Your task to perform on an android device: open app "Adobe Acrobat Reader" Image 0: 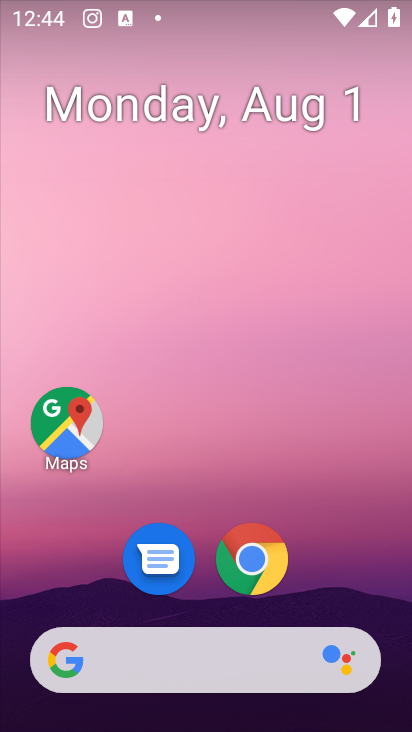
Step 0: drag from (123, 493) to (220, 25)
Your task to perform on an android device: open app "Adobe Acrobat Reader" Image 1: 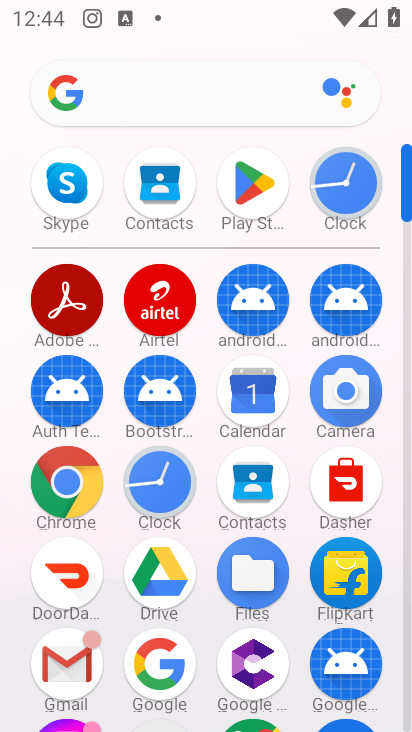
Step 1: click (273, 182)
Your task to perform on an android device: open app "Adobe Acrobat Reader" Image 2: 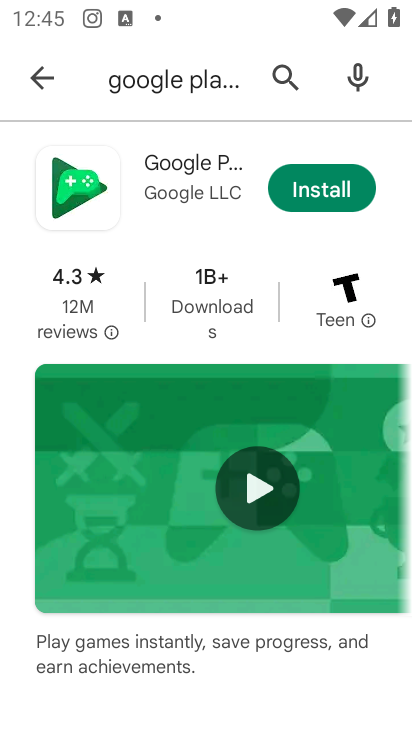
Step 2: click (281, 54)
Your task to perform on an android device: open app "Adobe Acrobat Reader" Image 3: 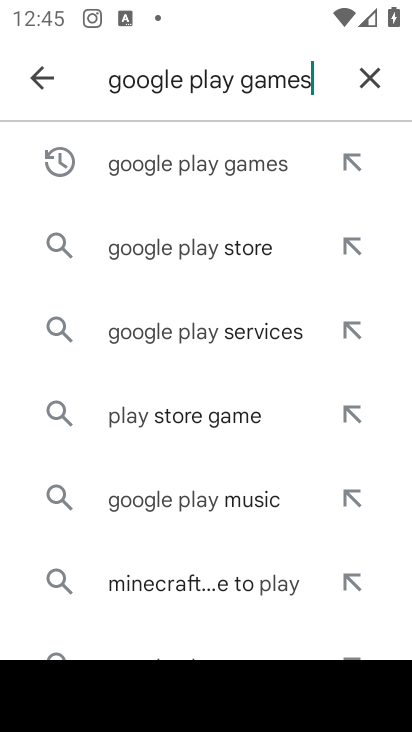
Step 3: click (371, 74)
Your task to perform on an android device: open app "Adobe Acrobat Reader" Image 4: 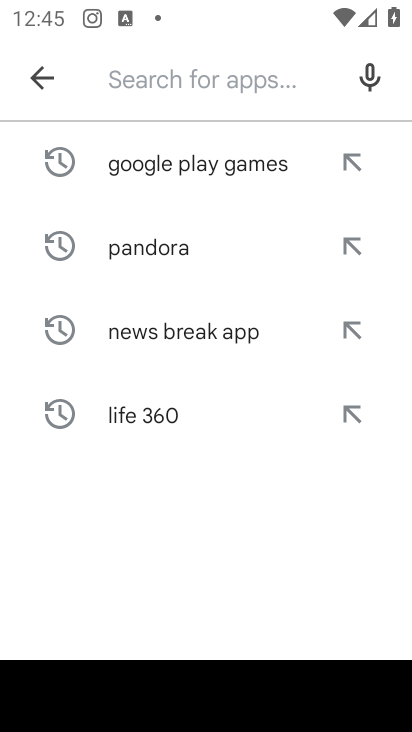
Step 4: click (170, 83)
Your task to perform on an android device: open app "Adobe Acrobat Reader" Image 5: 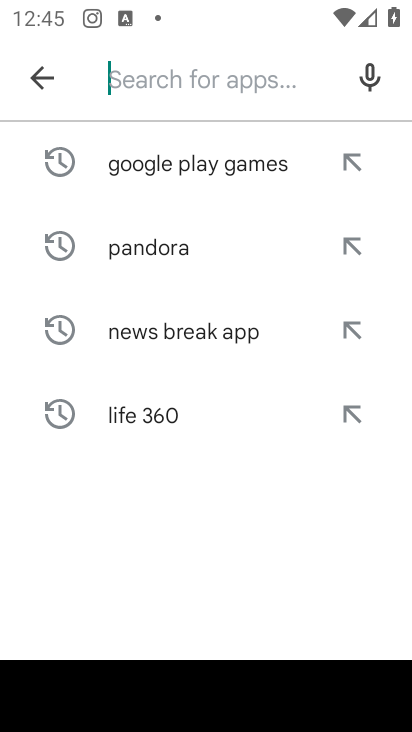
Step 5: type "Adobe Acrobat Reader""
Your task to perform on an android device: open app "Adobe Acrobat Reader" Image 6: 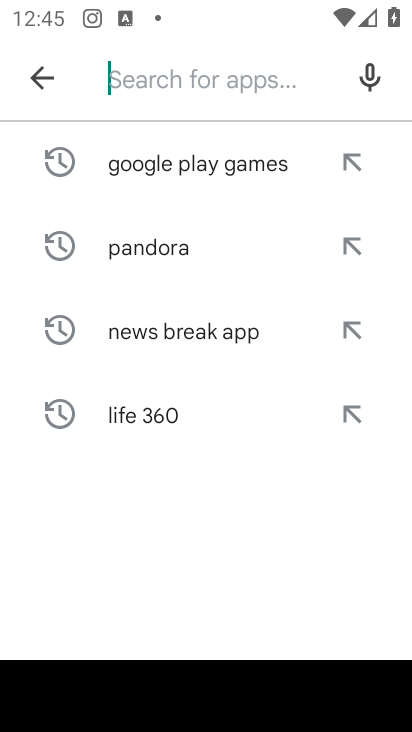
Step 6: click (162, 82)
Your task to perform on an android device: open app "Adobe Acrobat Reader" Image 7: 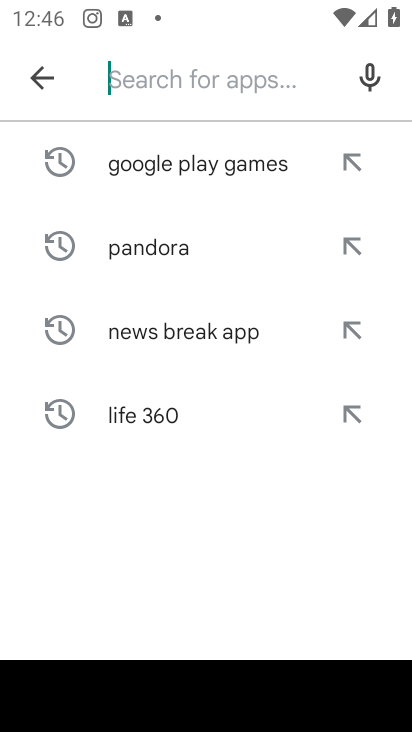
Step 7: type "adobe acrobat reader"
Your task to perform on an android device: open app "Adobe Acrobat Reader" Image 8: 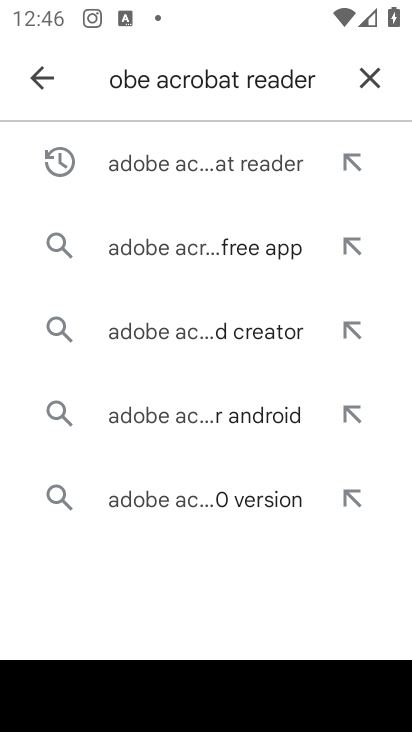
Step 8: click (214, 158)
Your task to perform on an android device: open app "Adobe Acrobat Reader" Image 9: 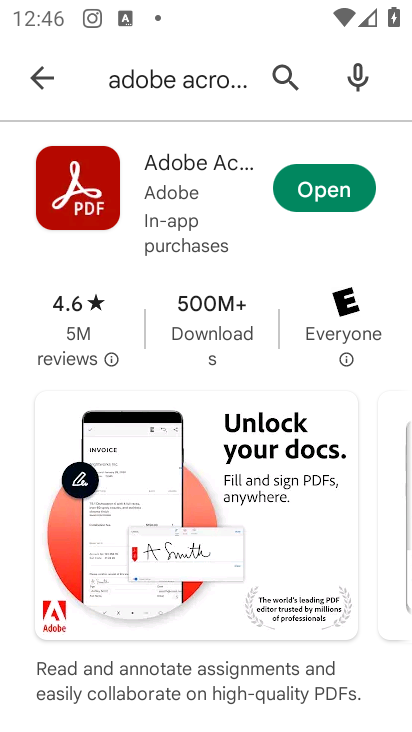
Step 9: click (347, 196)
Your task to perform on an android device: open app "Adobe Acrobat Reader" Image 10: 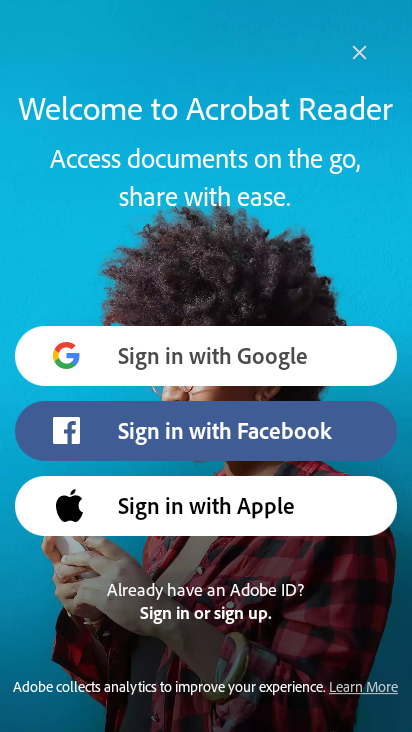
Step 10: task complete